Your task to perform on an android device: Open Google Maps Image 0: 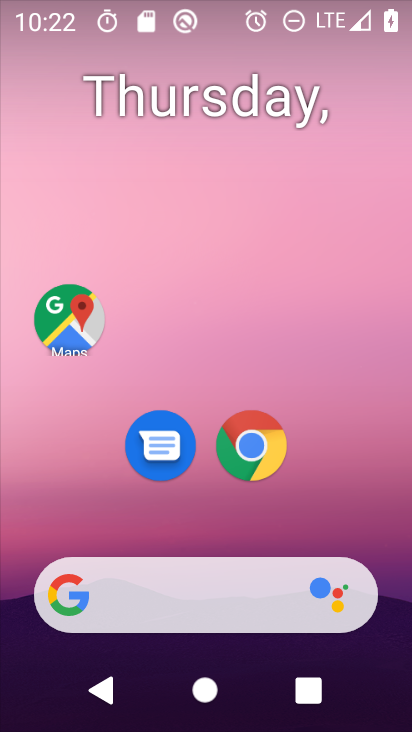
Step 0: drag from (246, 551) to (331, 240)
Your task to perform on an android device: Open Google Maps Image 1: 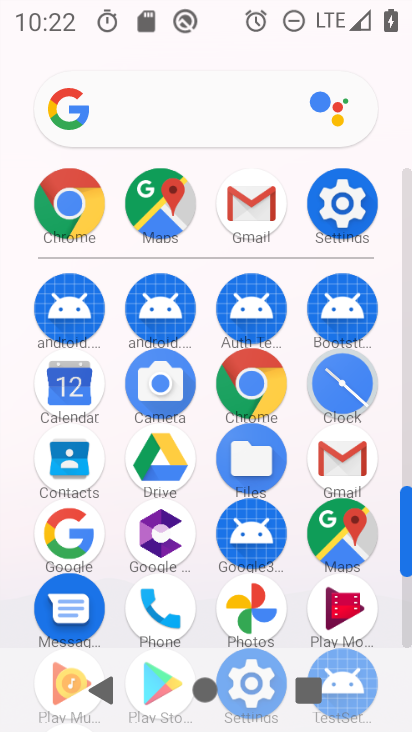
Step 1: click (330, 527)
Your task to perform on an android device: Open Google Maps Image 2: 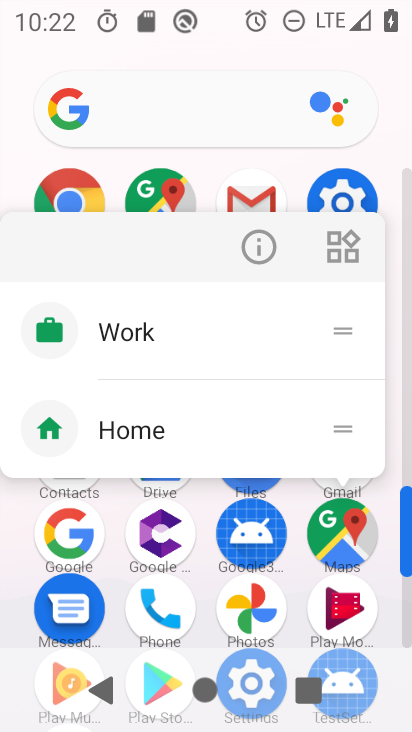
Step 2: click (260, 249)
Your task to perform on an android device: Open Google Maps Image 3: 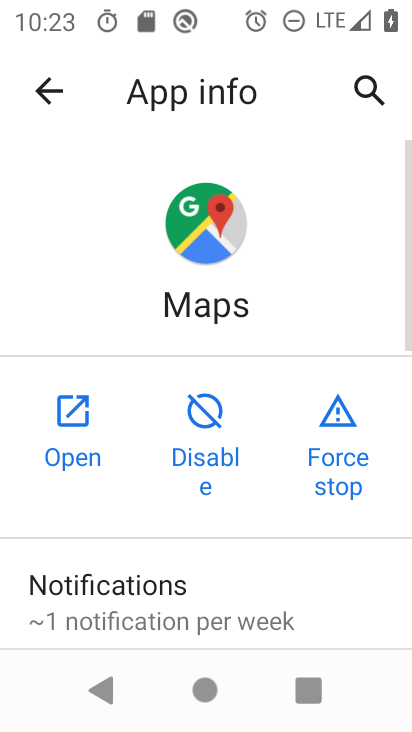
Step 3: click (62, 436)
Your task to perform on an android device: Open Google Maps Image 4: 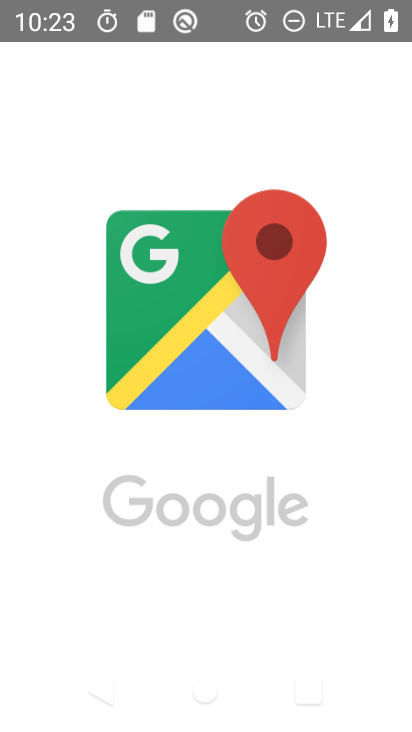
Step 4: drag from (231, 541) to (291, 316)
Your task to perform on an android device: Open Google Maps Image 5: 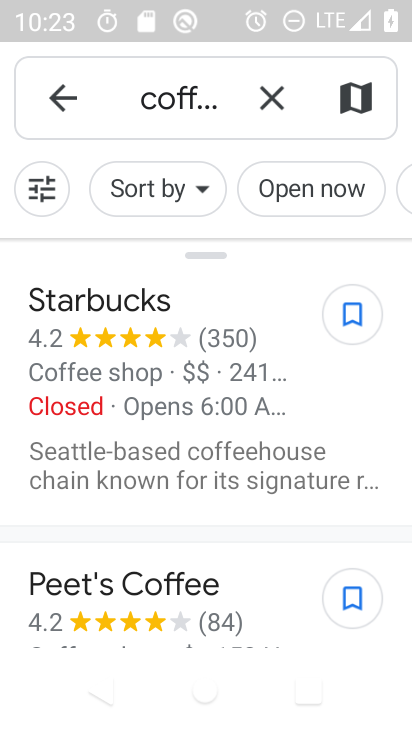
Step 5: click (284, 91)
Your task to perform on an android device: Open Google Maps Image 6: 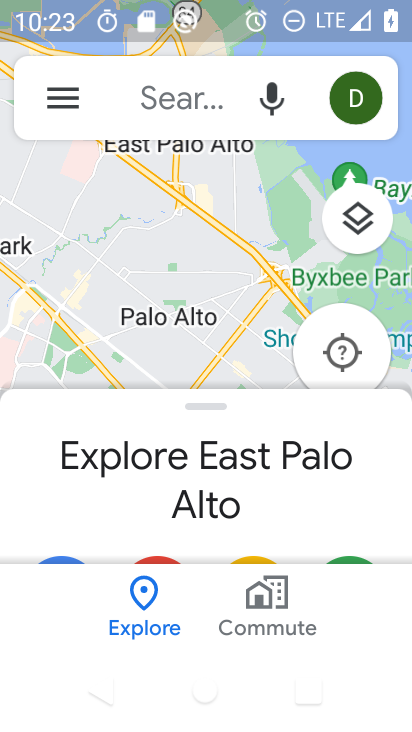
Step 6: click (184, 111)
Your task to perform on an android device: Open Google Maps Image 7: 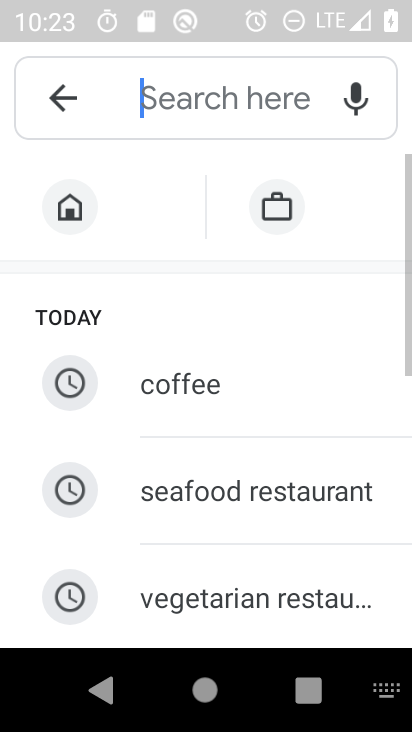
Step 7: click (72, 99)
Your task to perform on an android device: Open Google Maps Image 8: 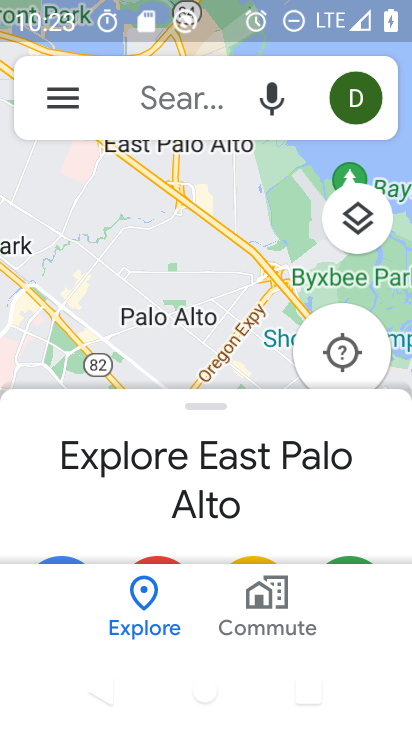
Step 8: click (74, 102)
Your task to perform on an android device: Open Google Maps Image 9: 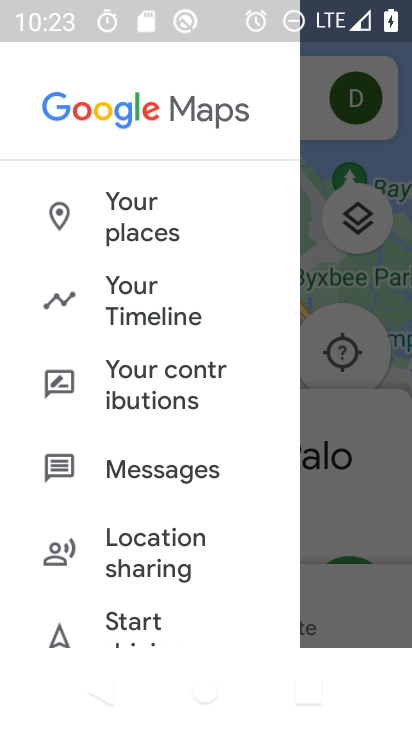
Step 9: task complete